Your task to perform on an android device: set an alarm Image 0: 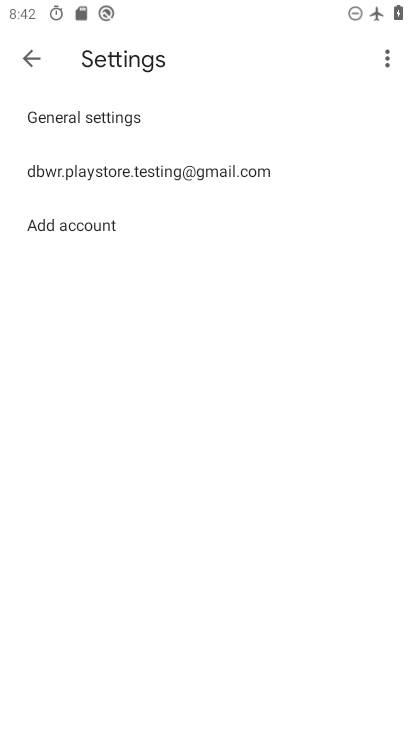
Step 0: press home button
Your task to perform on an android device: set an alarm Image 1: 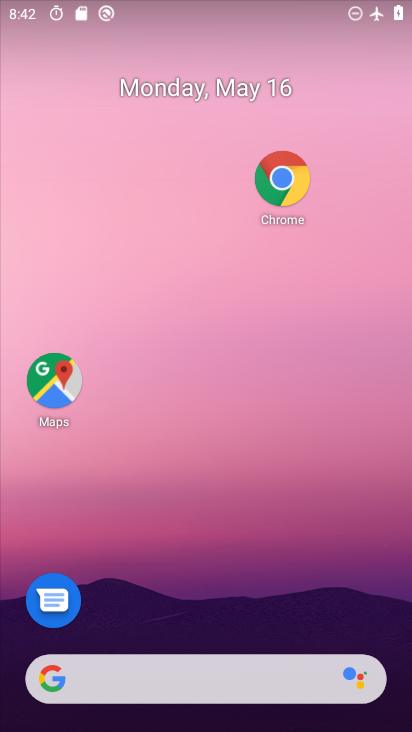
Step 1: drag from (171, 679) to (302, 112)
Your task to perform on an android device: set an alarm Image 2: 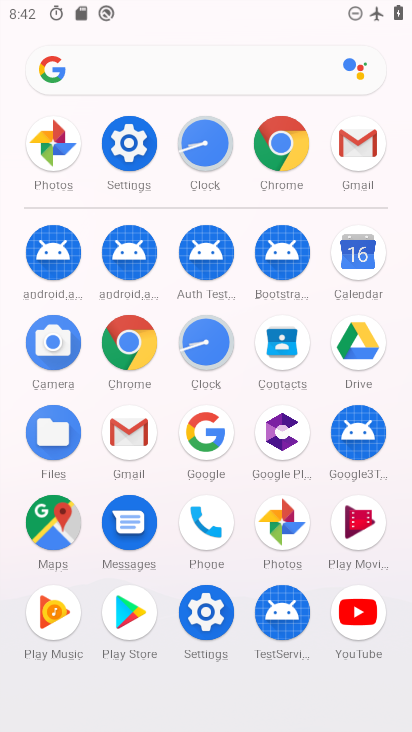
Step 2: click (217, 351)
Your task to perform on an android device: set an alarm Image 3: 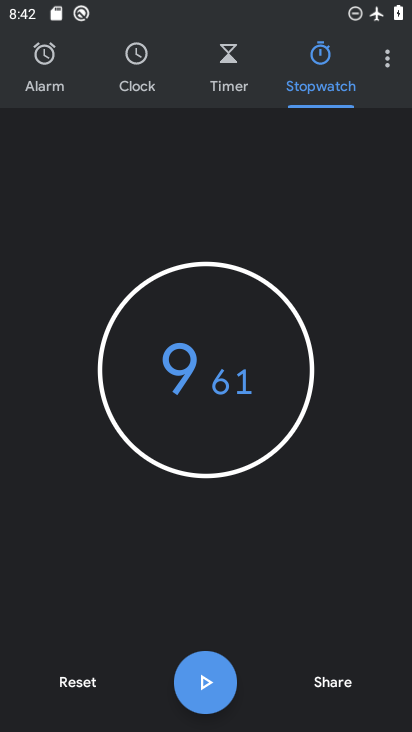
Step 3: click (43, 82)
Your task to perform on an android device: set an alarm Image 4: 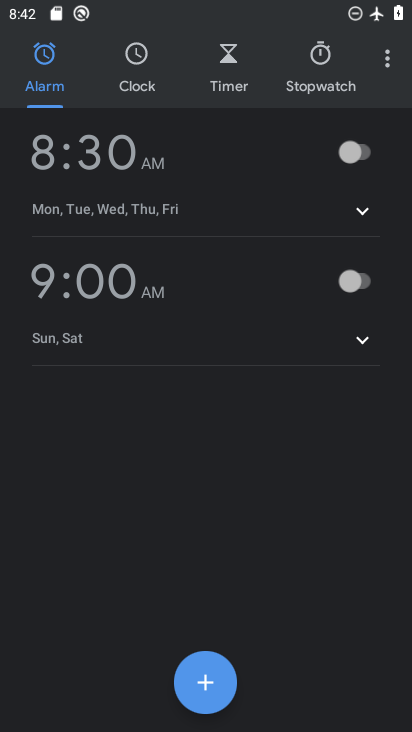
Step 4: click (367, 150)
Your task to perform on an android device: set an alarm Image 5: 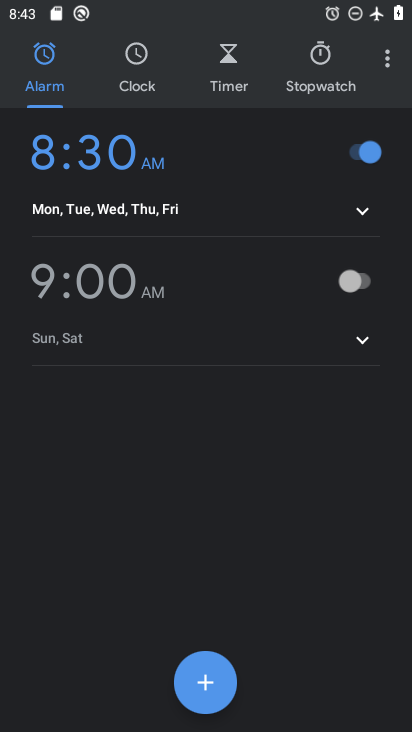
Step 5: task complete